Your task to perform on an android device: check the backup settings in the google photos Image 0: 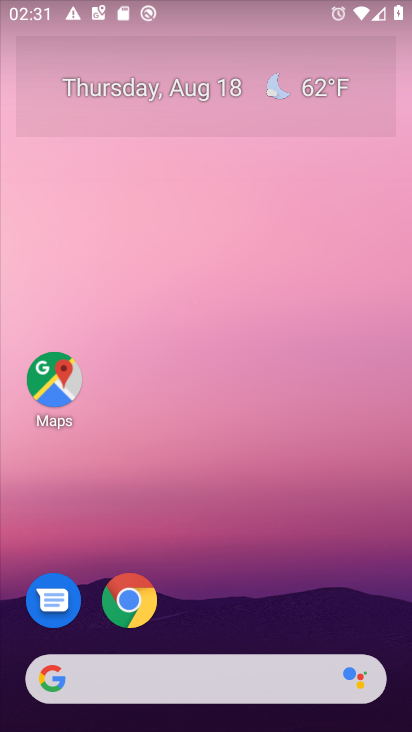
Step 0: press home button
Your task to perform on an android device: check the backup settings in the google photos Image 1: 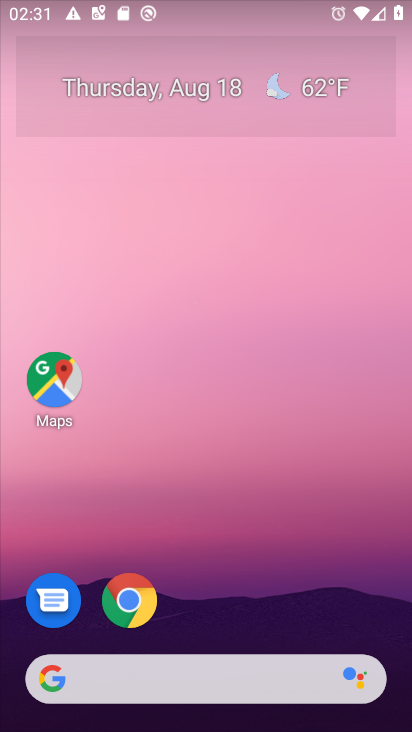
Step 1: drag from (241, 601) to (221, 107)
Your task to perform on an android device: check the backup settings in the google photos Image 2: 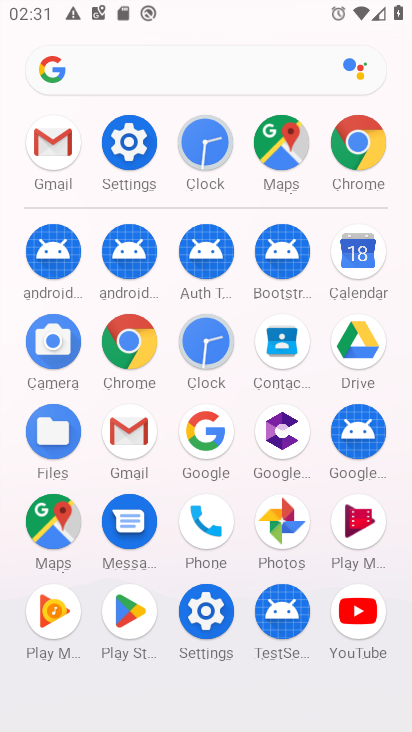
Step 2: click (281, 522)
Your task to perform on an android device: check the backup settings in the google photos Image 3: 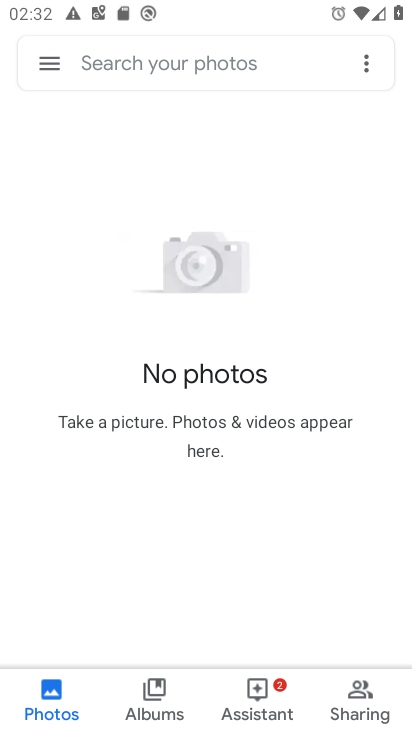
Step 3: click (53, 61)
Your task to perform on an android device: check the backup settings in the google photos Image 4: 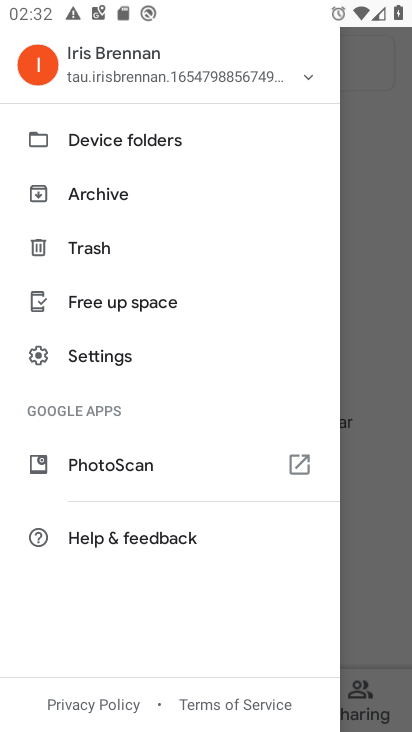
Step 4: click (102, 355)
Your task to perform on an android device: check the backup settings in the google photos Image 5: 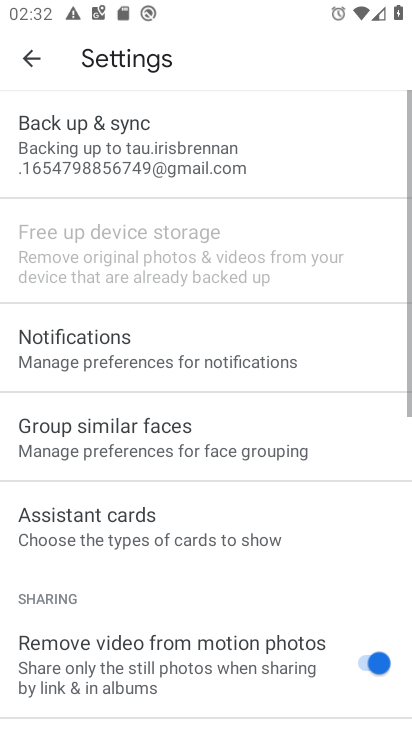
Step 5: click (157, 158)
Your task to perform on an android device: check the backup settings in the google photos Image 6: 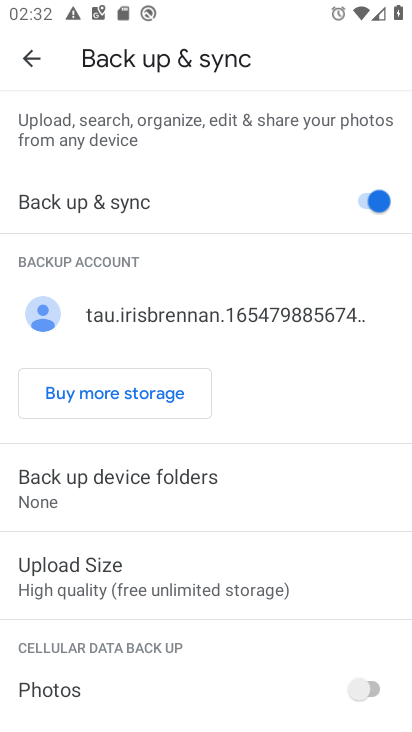
Step 6: task complete